Your task to perform on an android device: Find coffee shops on Maps Image 0: 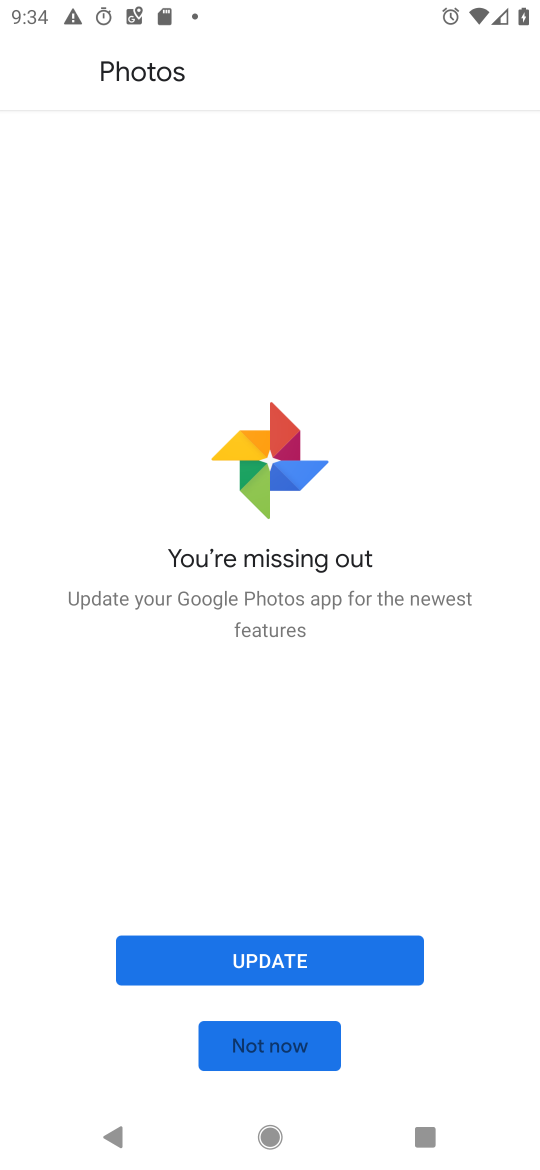
Step 0: drag from (377, 806) to (360, 132)
Your task to perform on an android device: Find coffee shops on Maps Image 1: 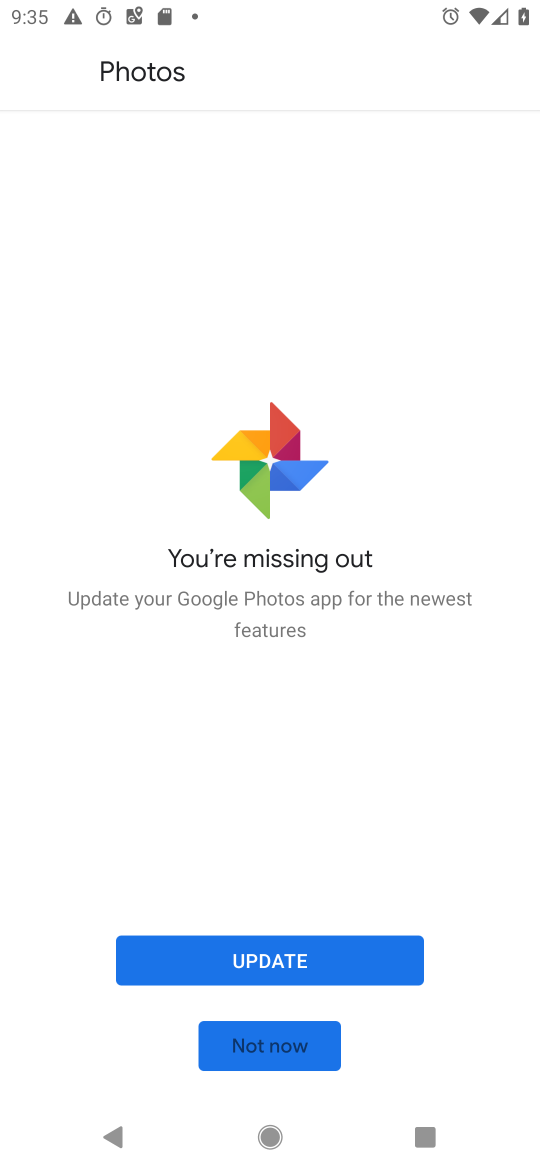
Step 1: drag from (275, 895) to (409, 13)
Your task to perform on an android device: Find coffee shops on Maps Image 2: 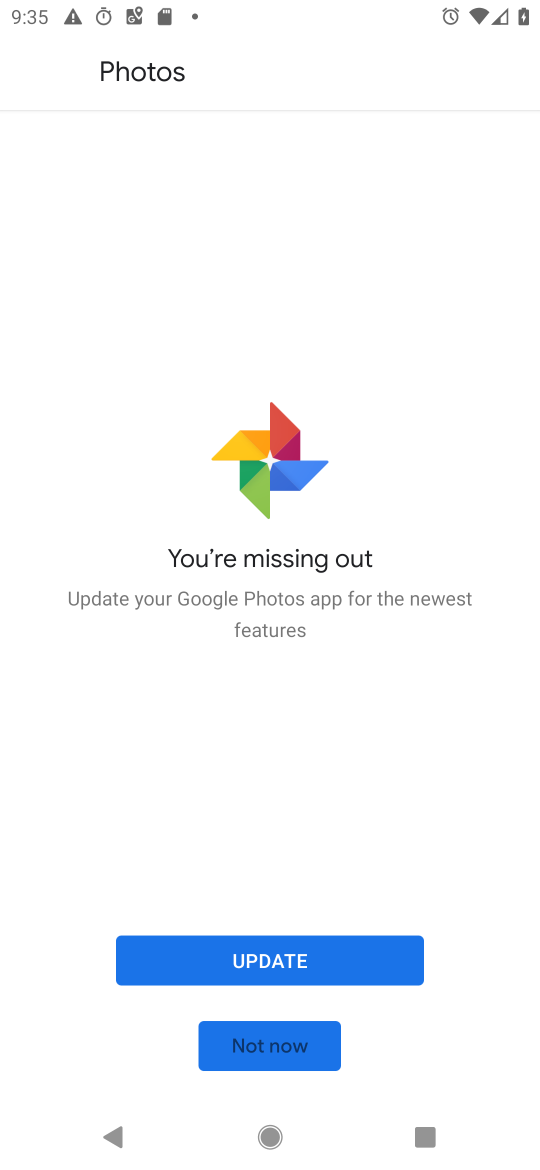
Step 2: drag from (270, 719) to (332, 29)
Your task to perform on an android device: Find coffee shops on Maps Image 3: 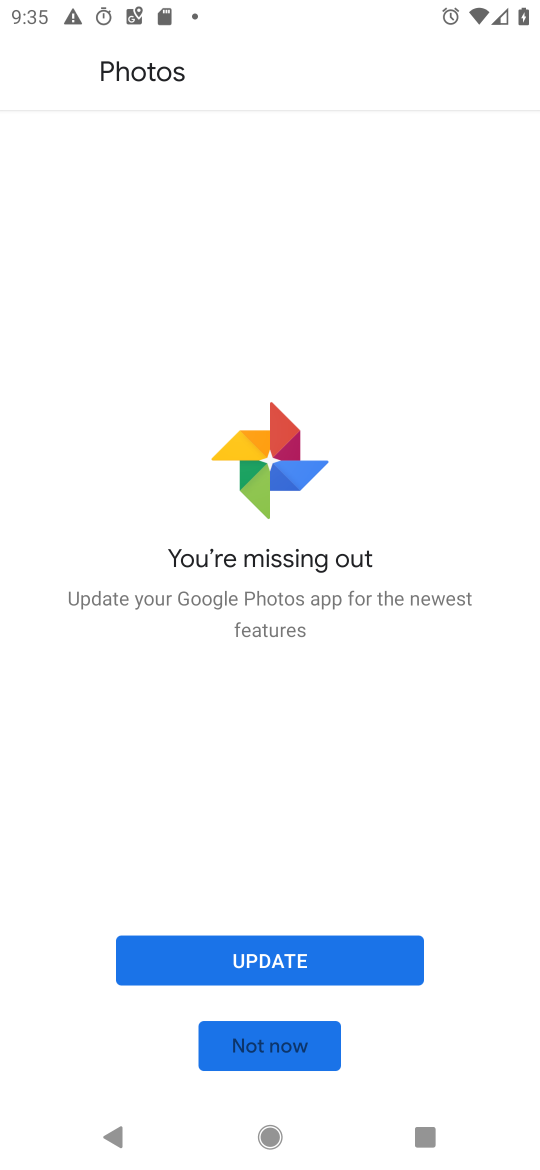
Step 3: drag from (242, 1000) to (421, 83)
Your task to perform on an android device: Find coffee shops on Maps Image 4: 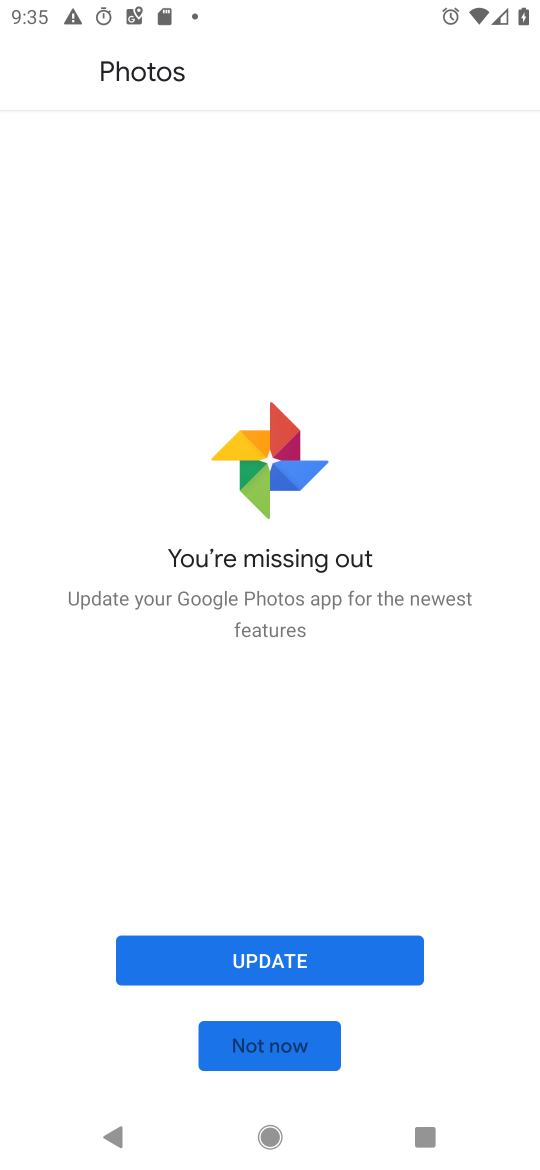
Step 4: click (271, 1045)
Your task to perform on an android device: Find coffee shops on Maps Image 5: 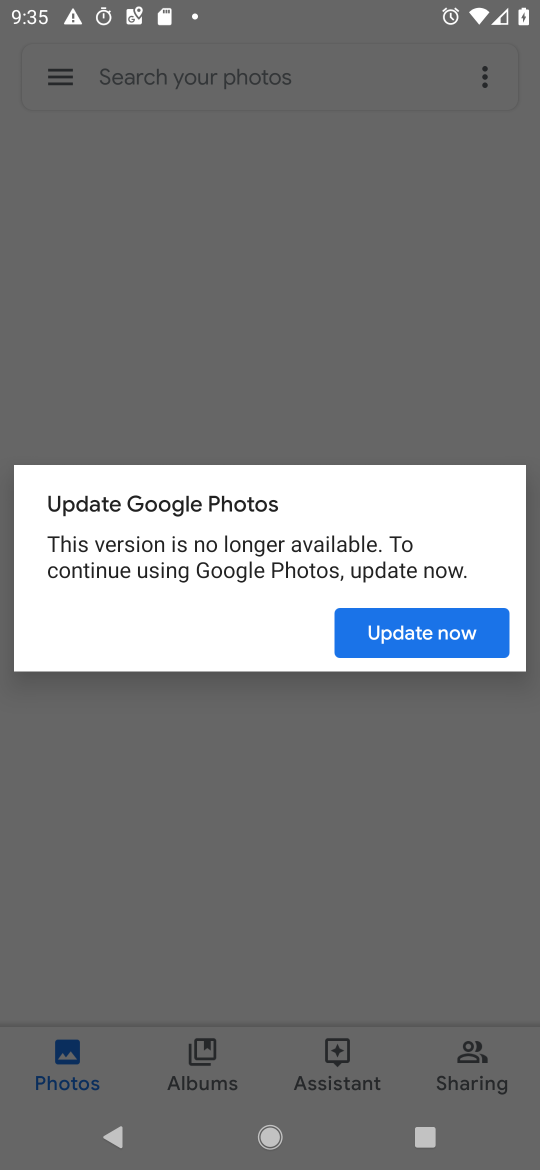
Step 5: drag from (242, 447) to (263, 306)
Your task to perform on an android device: Find coffee shops on Maps Image 6: 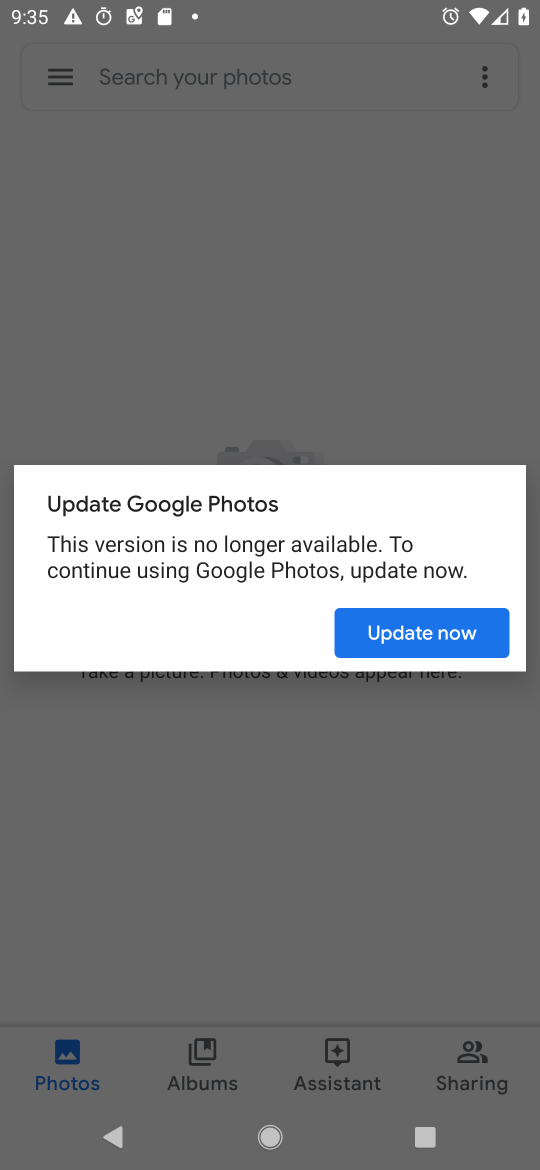
Step 6: press home button
Your task to perform on an android device: Find coffee shops on Maps Image 7: 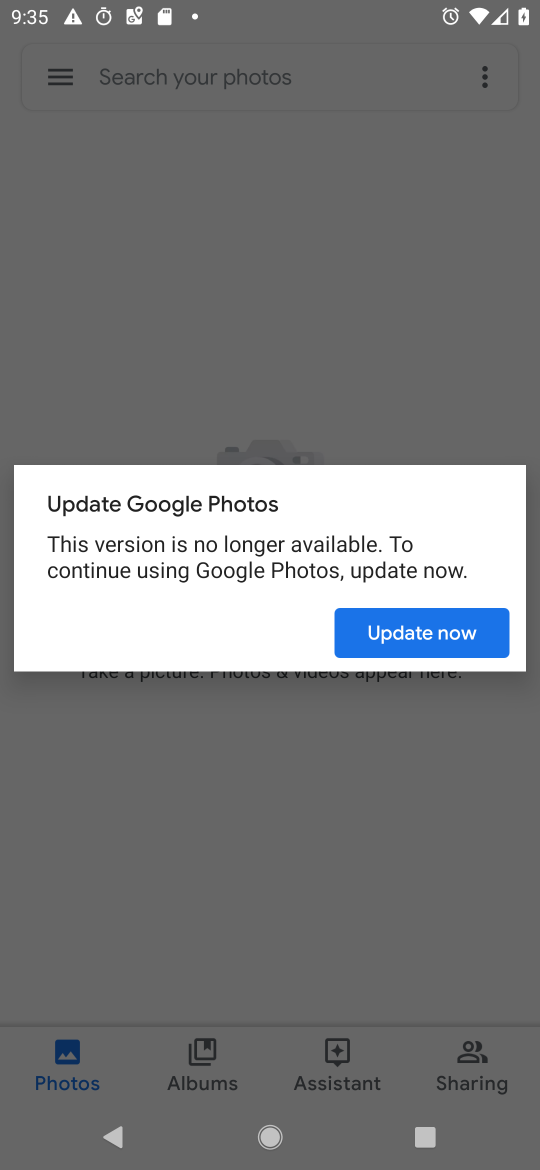
Step 7: press home button
Your task to perform on an android device: Find coffee shops on Maps Image 8: 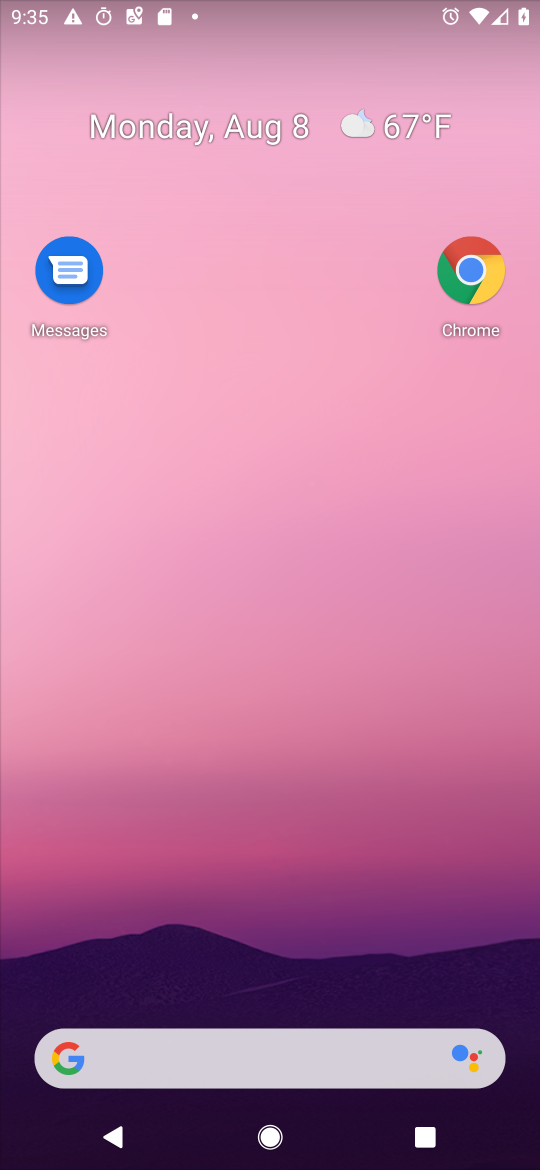
Step 8: press home button
Your task to perform on an android device: Find coffee shops on Maps Image 9: 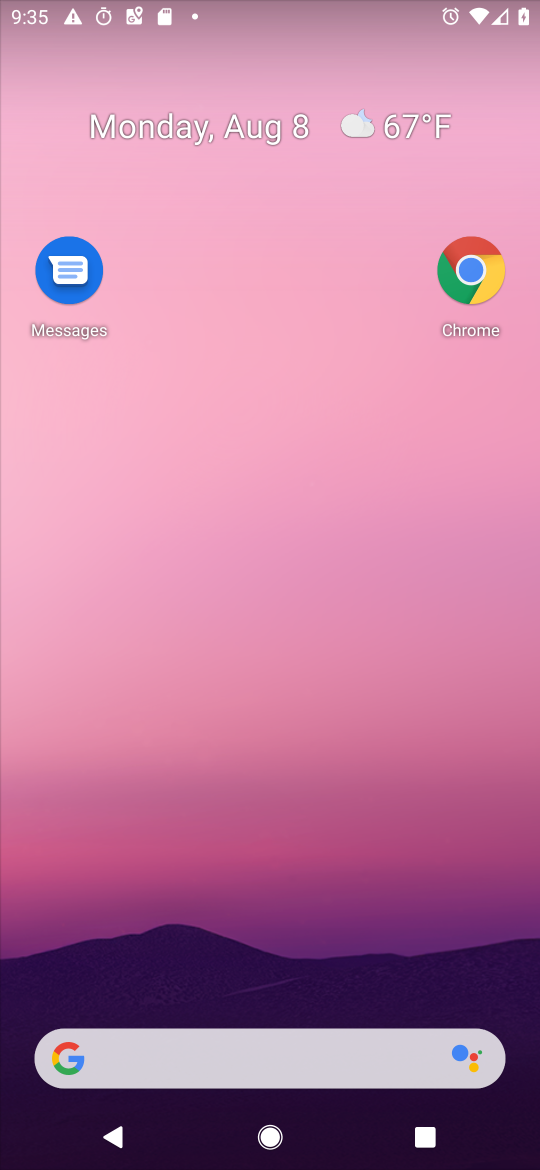
Step 9: click (310, 442)
Your task to perform on an android device: Find coffee shops on Maps Image 10: 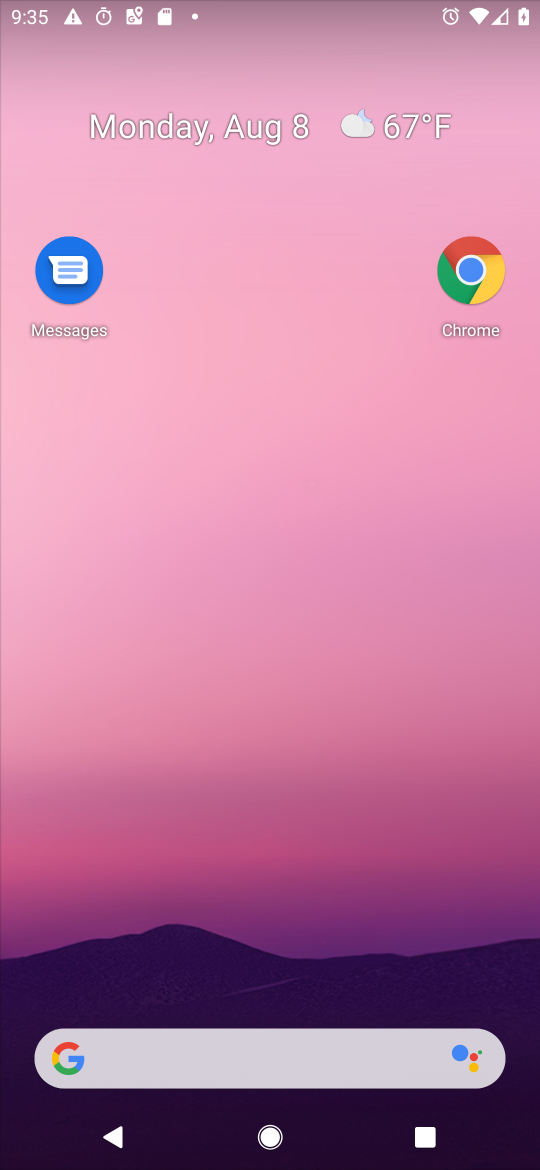
Step 10: drag from (259, 809) to (361, 425)
Your task to perform on an android device: Find coffee shops on Maps Image 11: 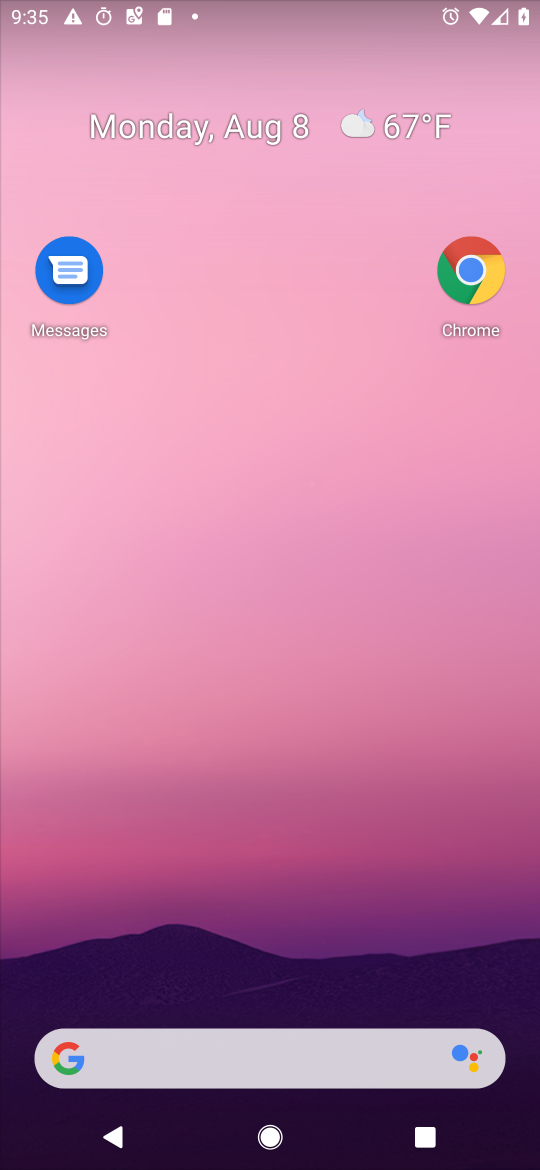
Step 11: drag from (314, 620) to (303, 30)
Your task to perform on an android device: Find coffee shops on Maps Image 12: 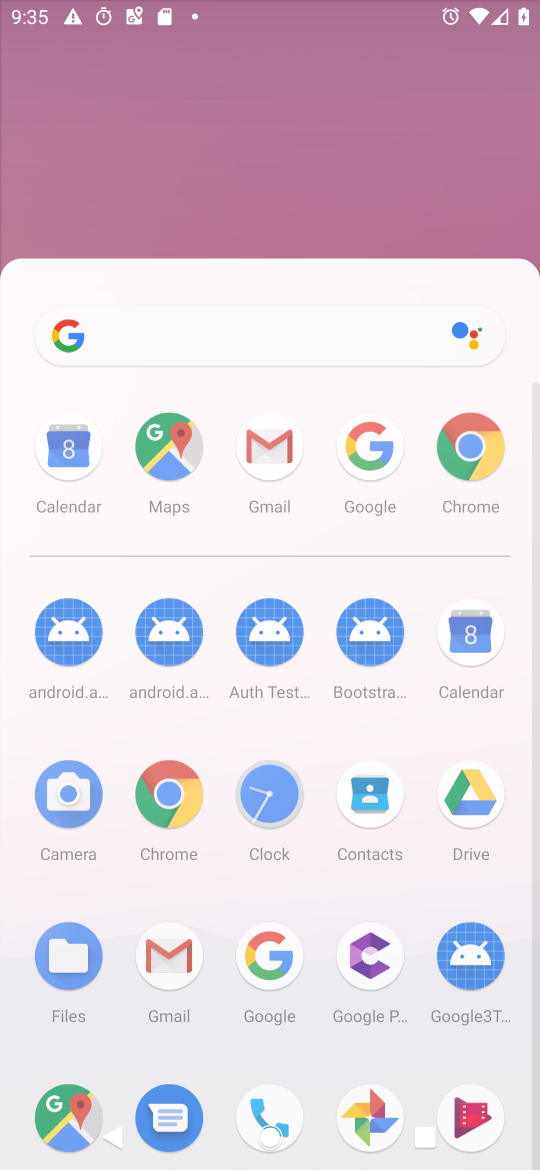
Step 12: drag from (356, 851) to (343, 158)
Your task to perform on an android device: Find coffee shops on Maps Image 13: 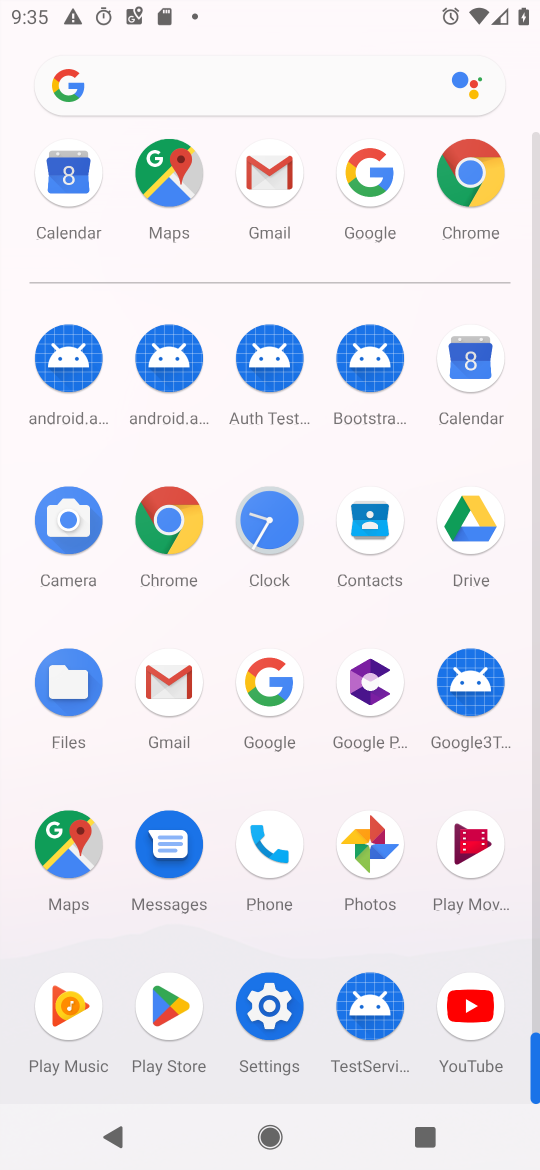
Step 13: click (150, 198)
Your task to perform on an android device: Find coffee shops on Maps Image 14: 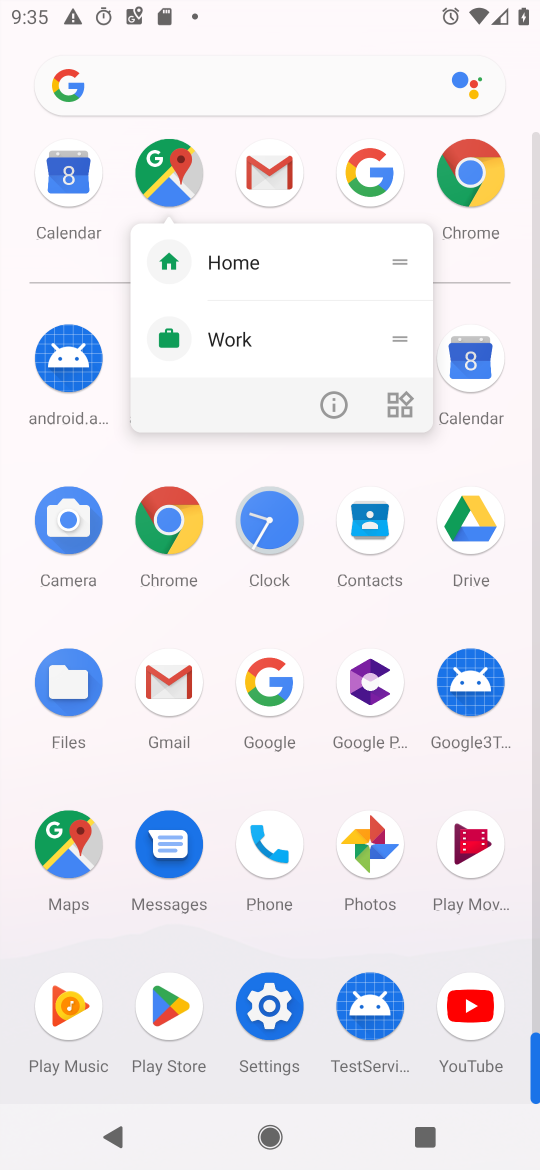
Step 14: click (341, 393)
Your task to perform on an android device: Find coffee shops on Maps Image 15: 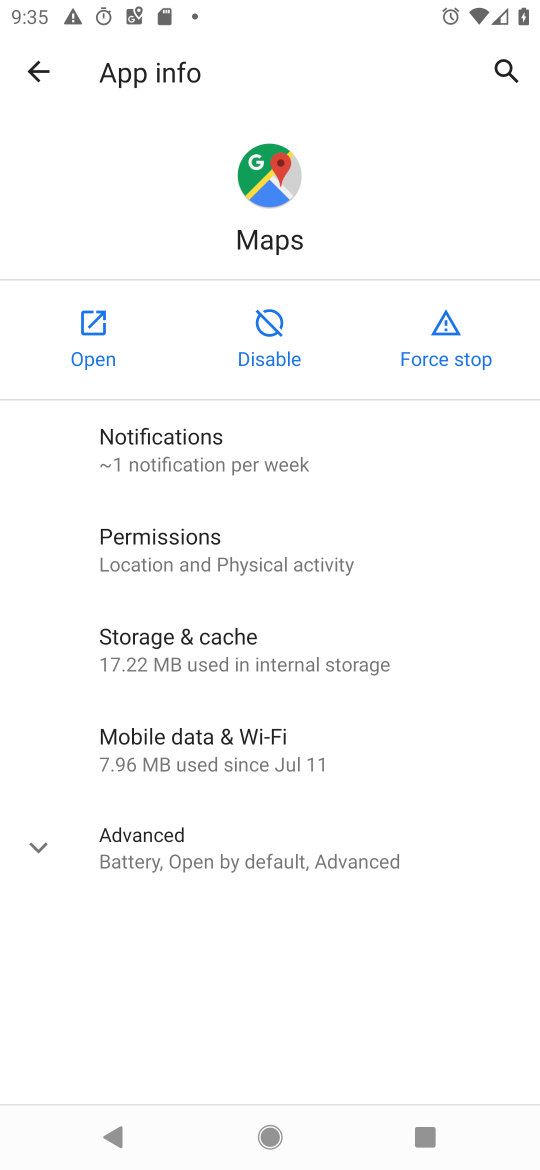
Step 15: click (88, 319)
Your task to perform on an android device: Find coffee shops on Maps Image 16: 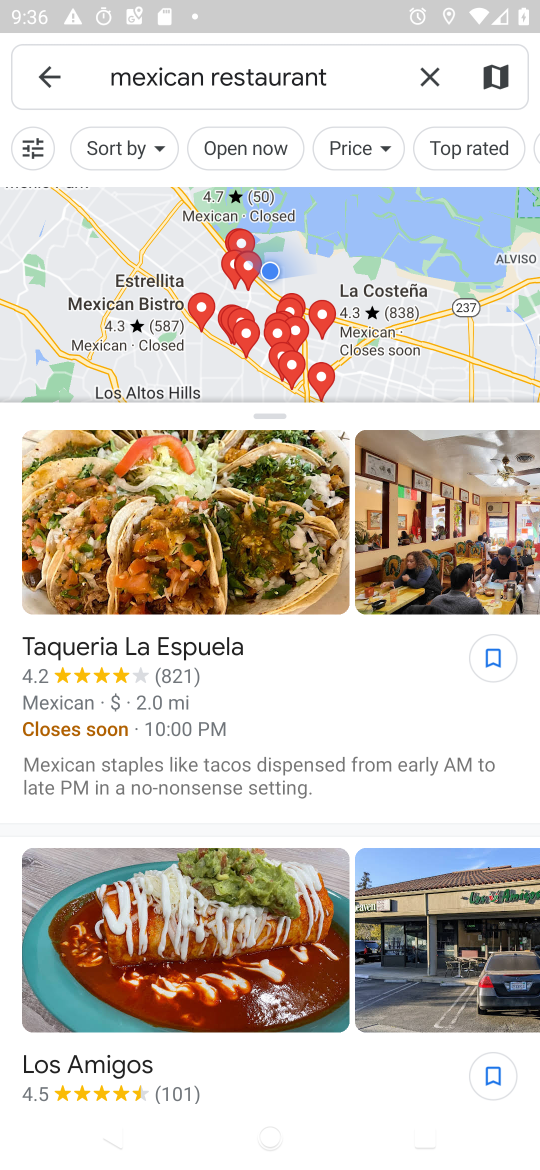
Step 16: click (429, 81)
Your task to perform on an android device: Find coffee shops on Maps Image 17: 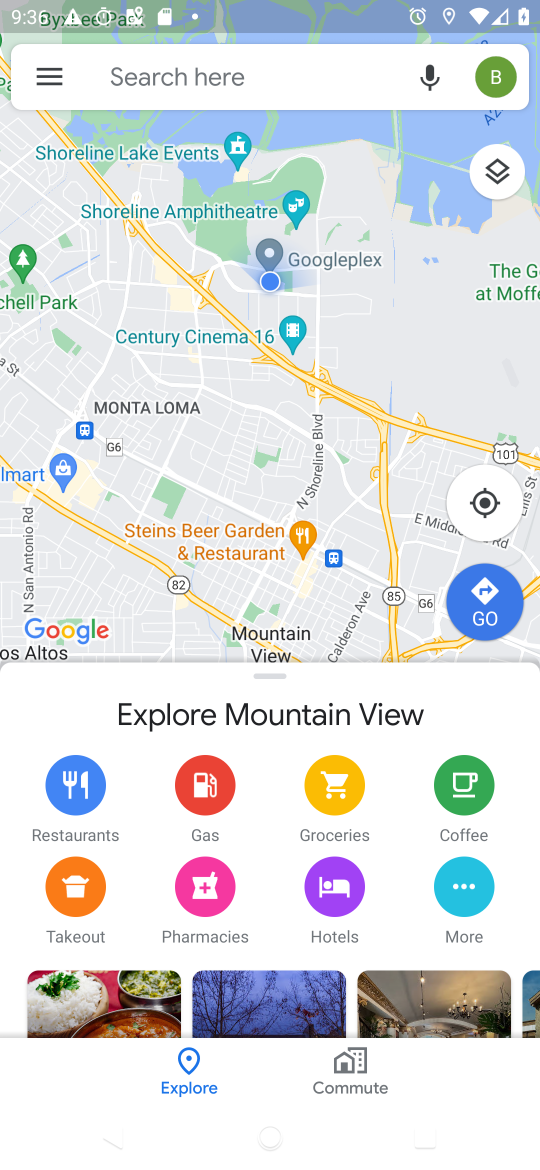
Step 17: click (235, 80)
Your task to perform on an android device: Find coffee shops on Maps Image 18: 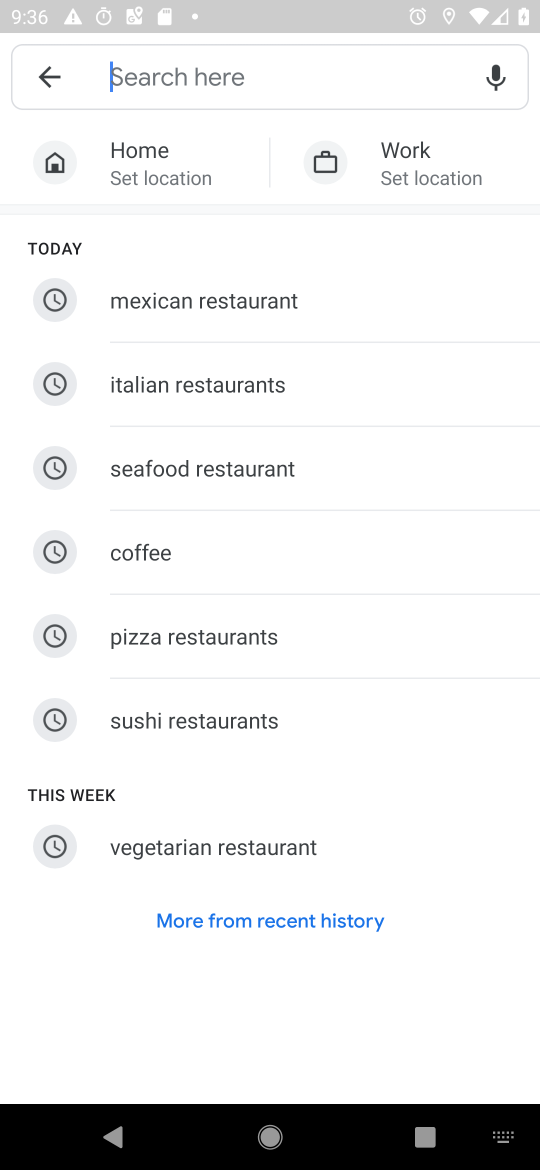
Step 18: click (128, 545)
Your task to perform on an android device: Find coffee shops on Maps Image 19: 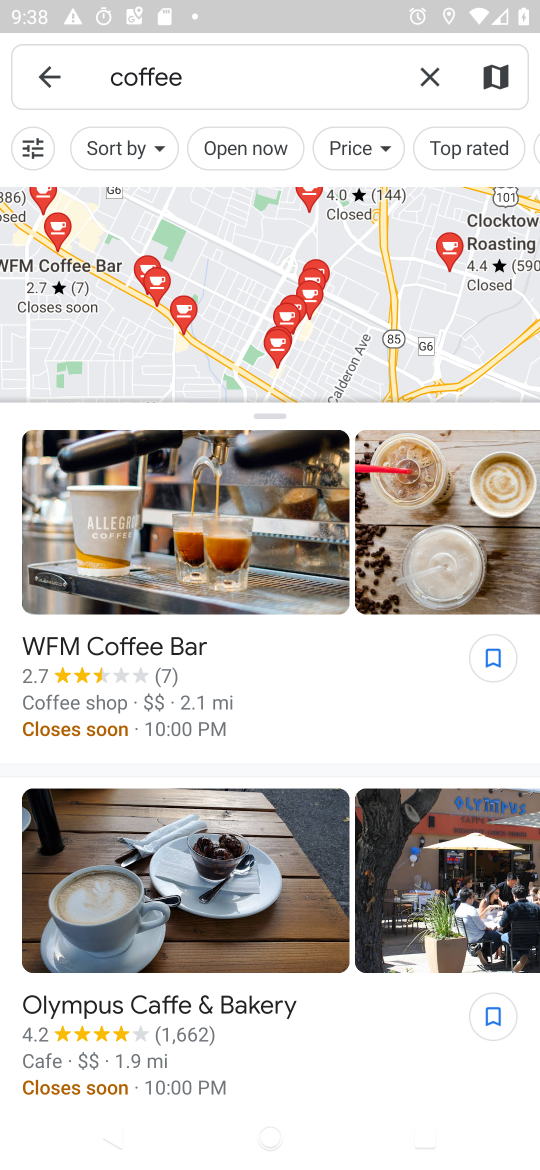
Step 19: task complete